Your task to perform on an android device: set the timer Image 0: 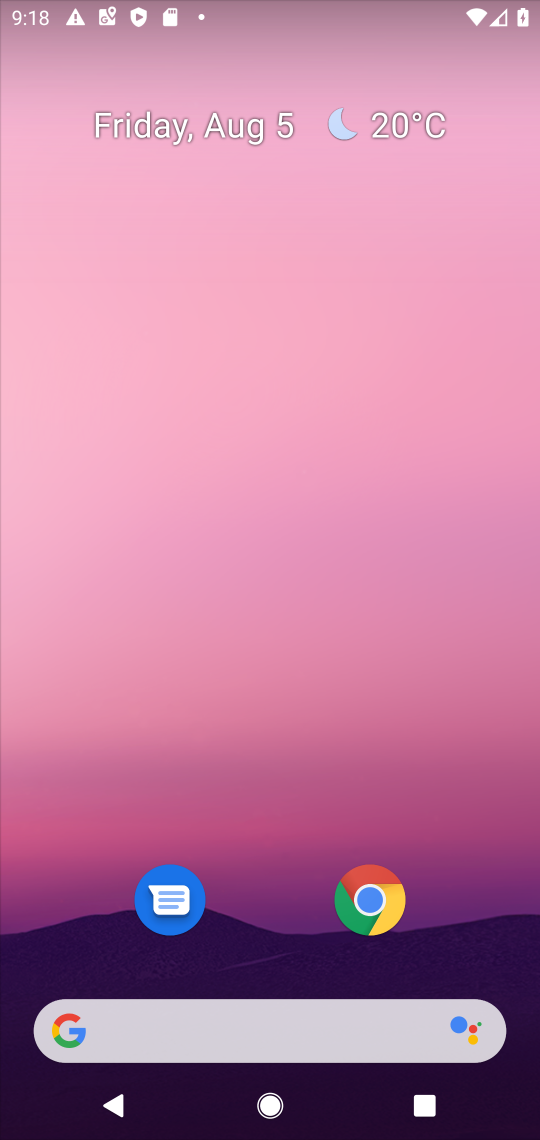
Step 0: press home button
Your task to perform on an android device: set the timer Image 1: 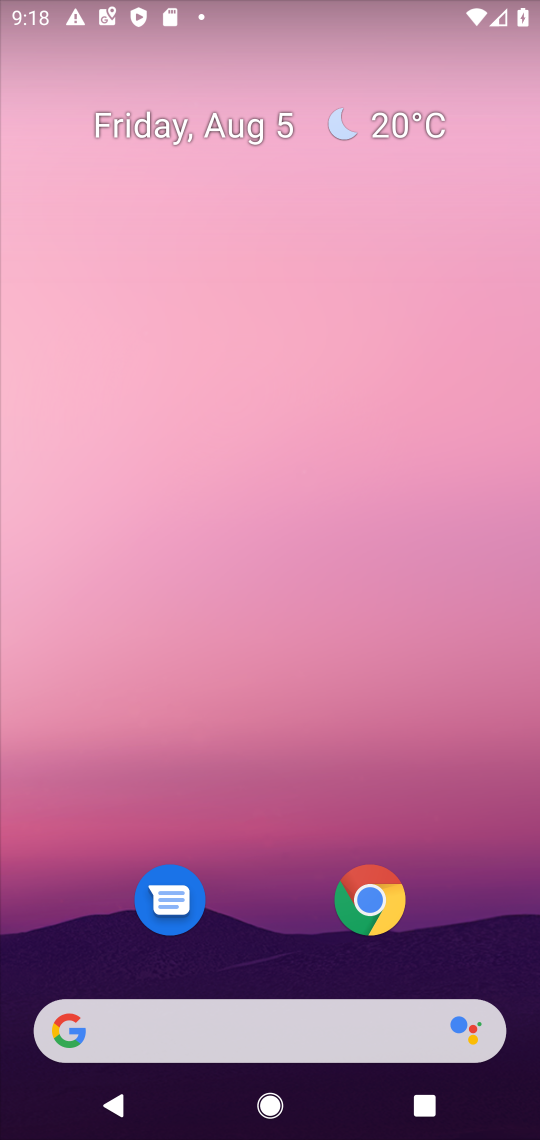
Step 1: click (175, 251)
Your task to perform on an android device: set the timer Image 2: 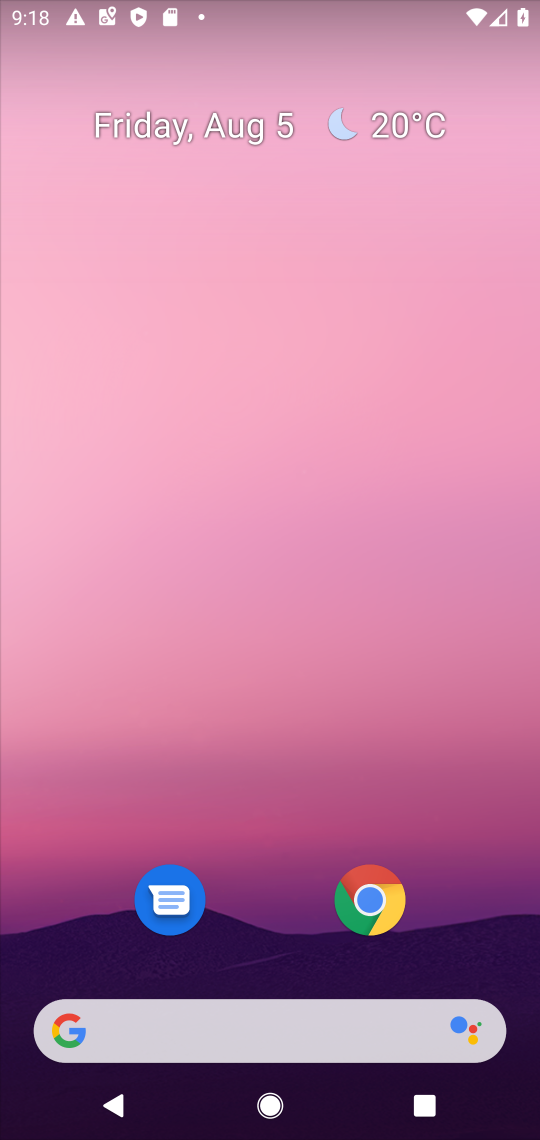
Step 2: drag from (266, 944) to (220, 680)
Your task to perform on an android device: set the timer Image 3: 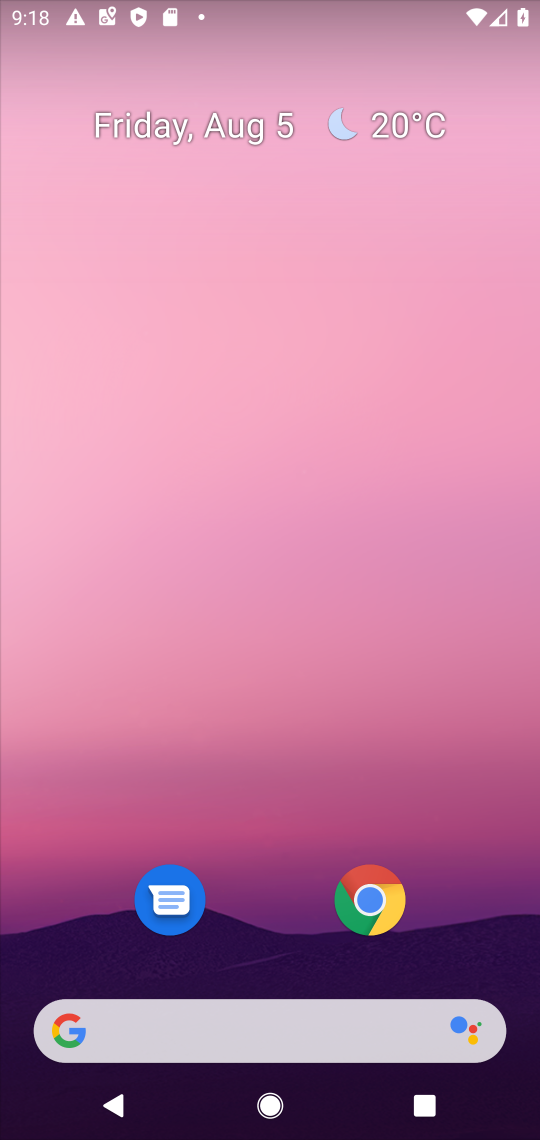
Step 3: drag from (255, 961) to (202, 278)
Your task to perform on an android device: set the timer Image 4: 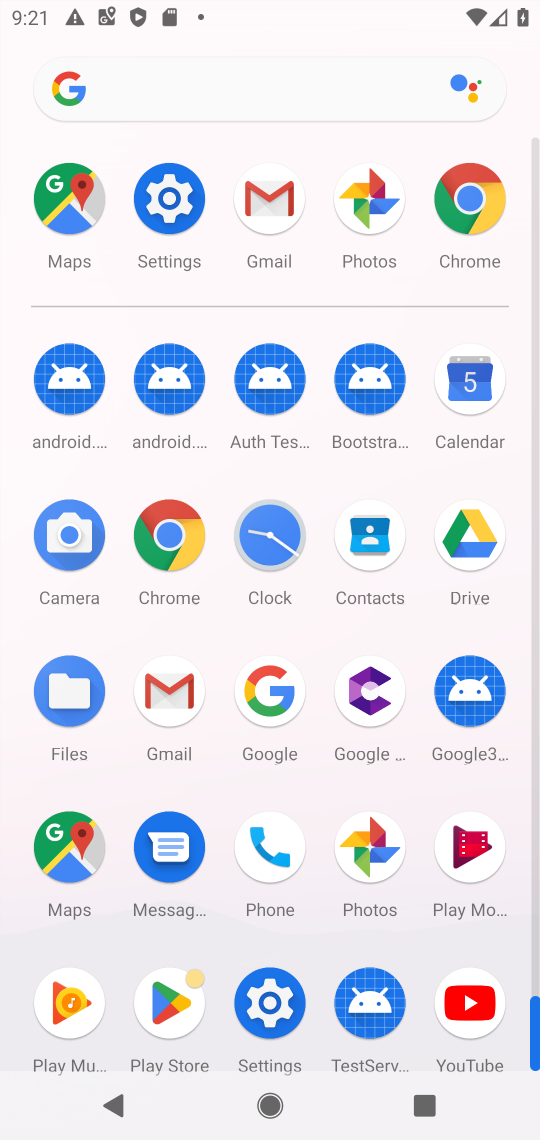
Step 4: click (255, 509)
Your task to perform on an android device: set the timer Image 5: 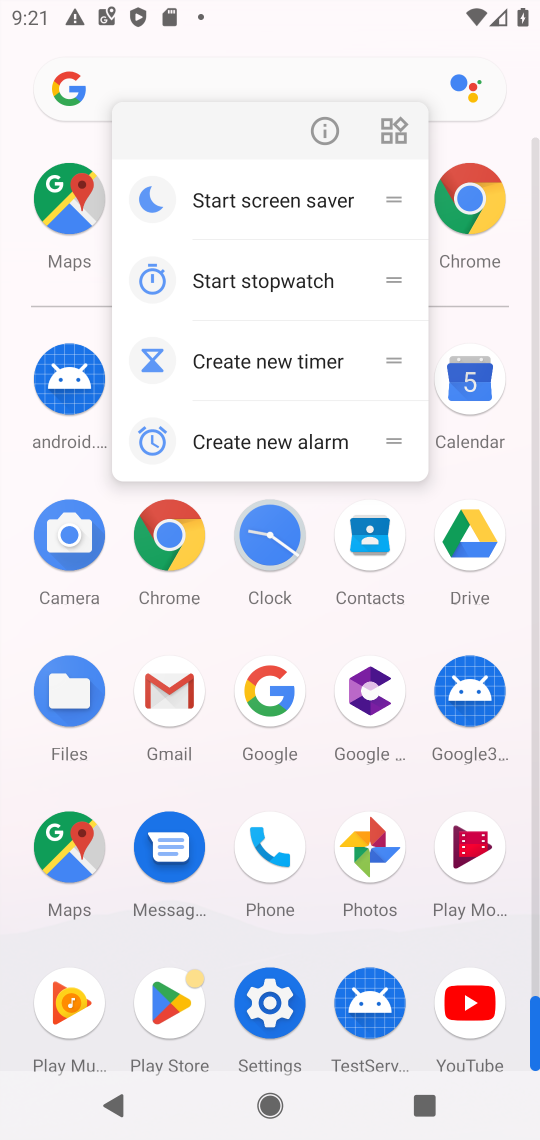
Step 5: click (255, 509)
Your task to perform on an android device: set the timer Image 6: 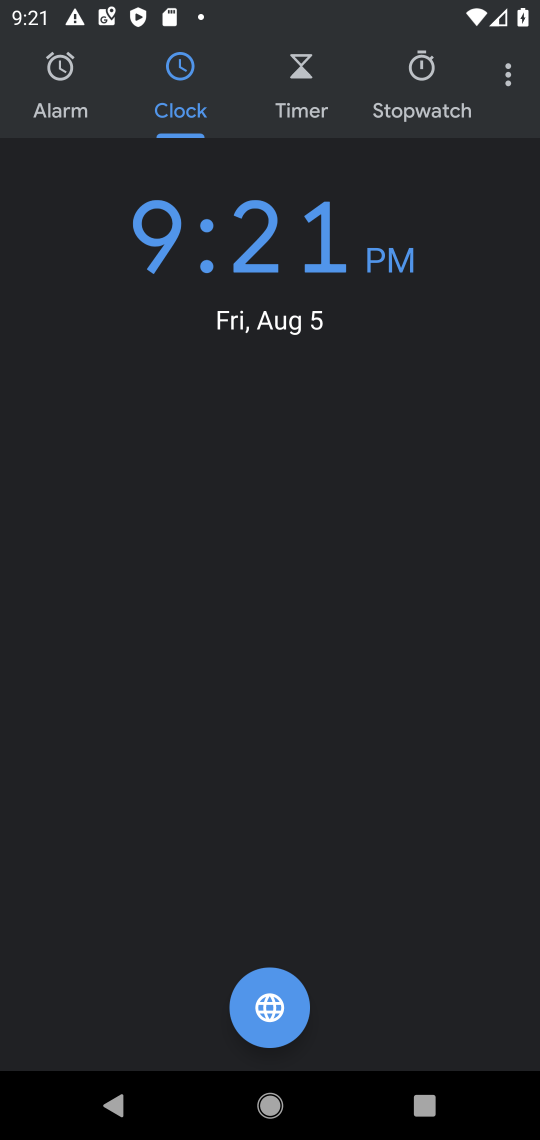
Step 6: click (275, 123)
Your task to perform on an android device: set the timer Image 7: 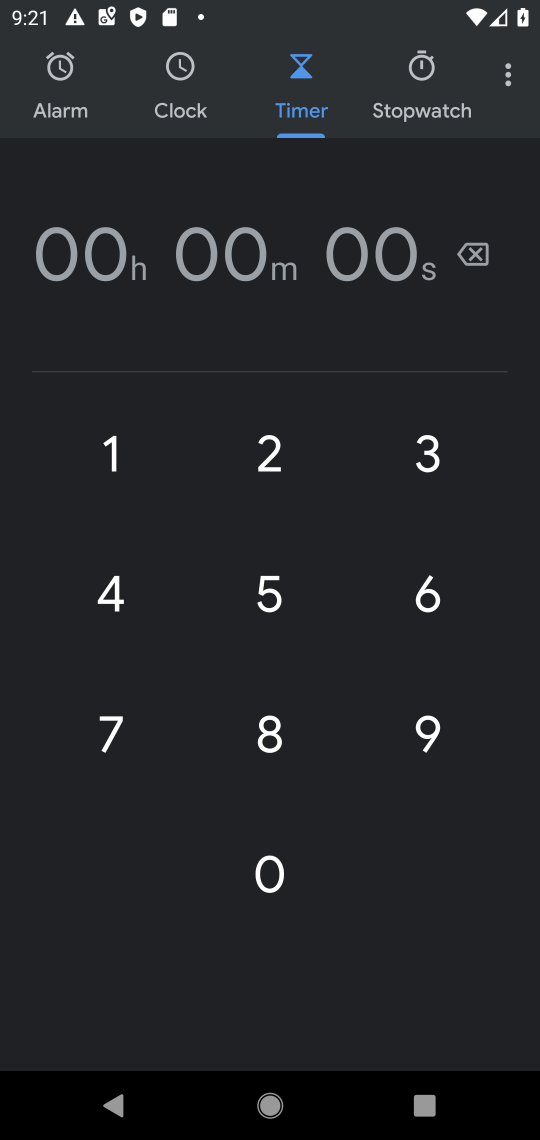
Step 7: click (287, 606)
Your task to perform on an android device: set the timer Image 8: 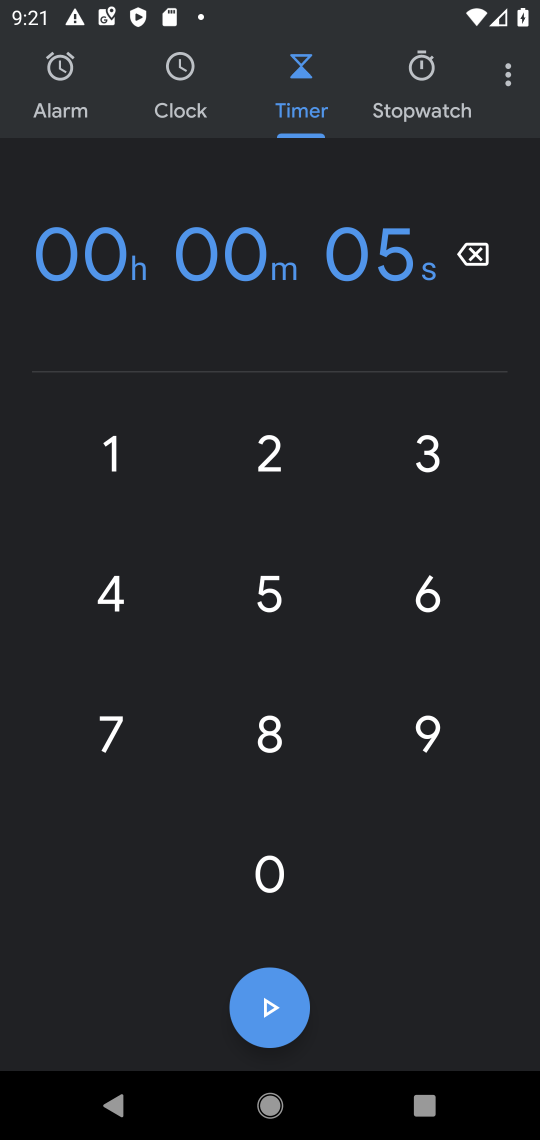
Step 8: click (296, 668)
Your task to perform on an android device: set the timer Image 9: 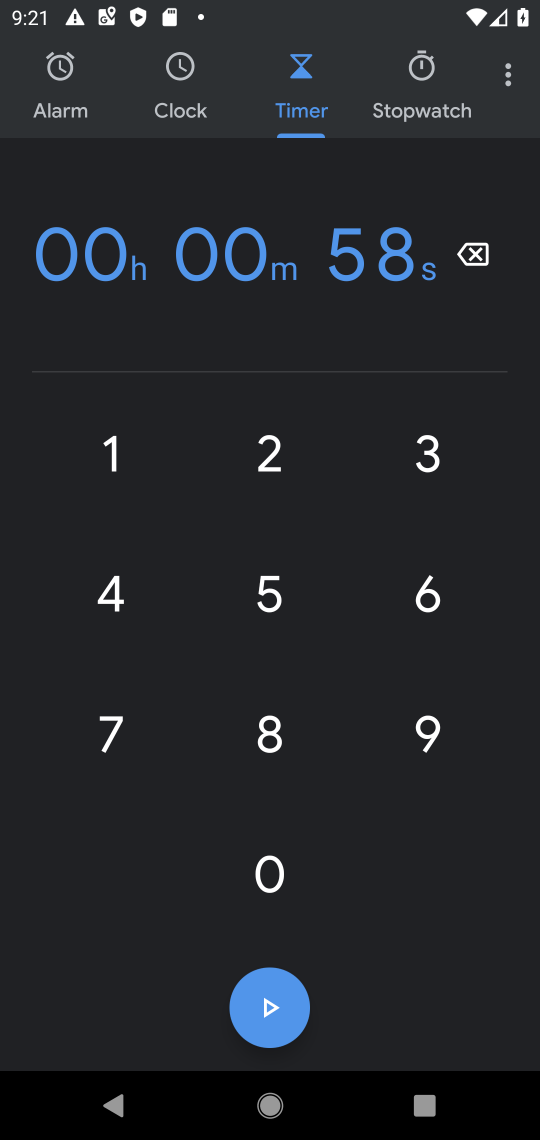
Step 9: click (444, 602)
Your task to perform on an android device: set the timer Image 10: 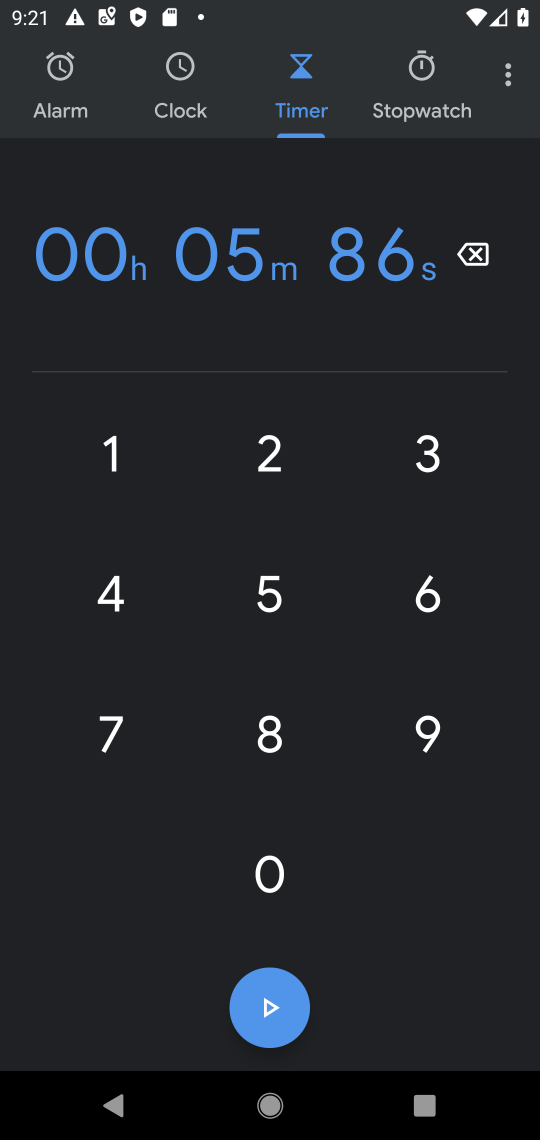
Step 10: click (279, 1009)
Your task to perform on an android device: set the timer Image 11: 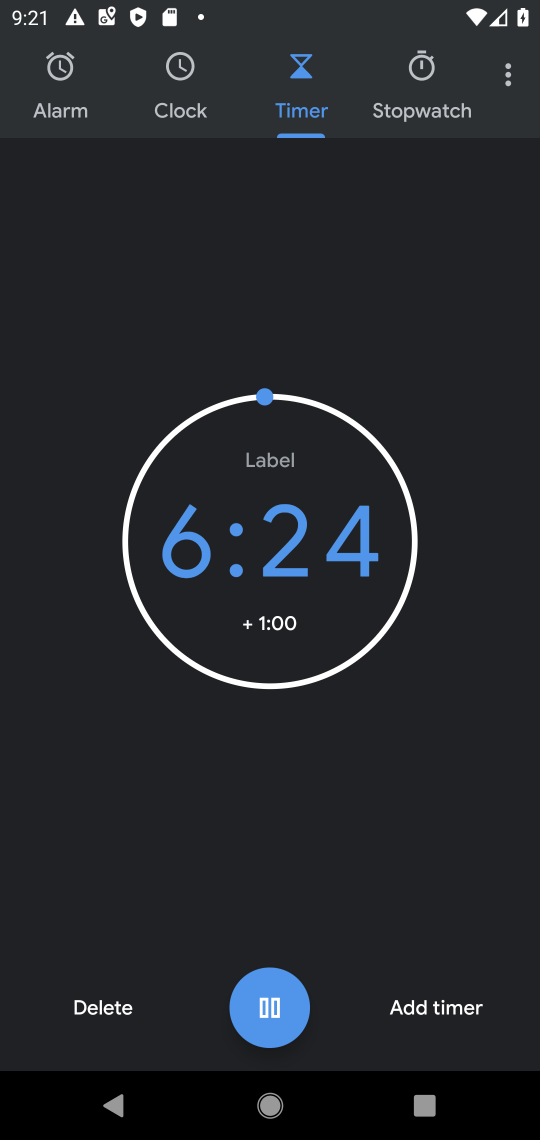
Step 11: task complete